Your task to perform on an android device: turn off wifi Image 0: 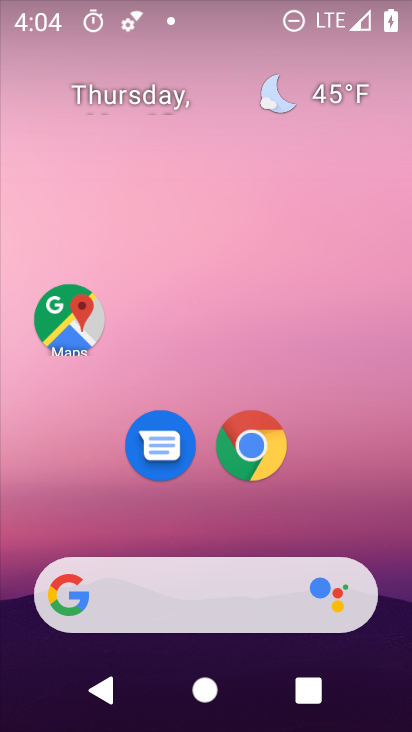
Step 0: drag from (306, 509) to (275, 149)
Your task to perform on an android device: turn off wifi Image 1: 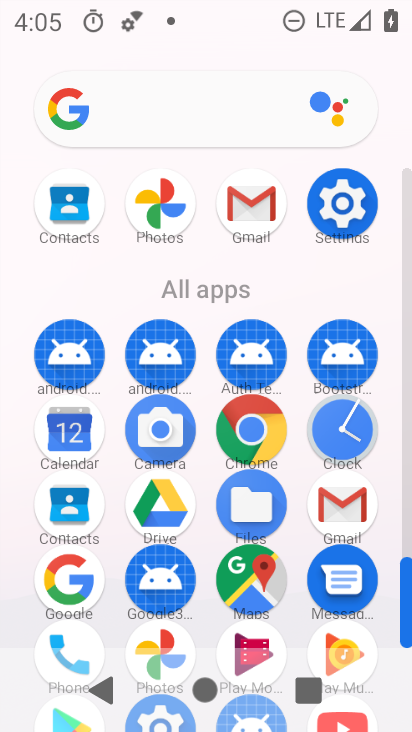
Step 1: click (341, 201)
Your task to perform on an android device: turn off wifi Image 2: 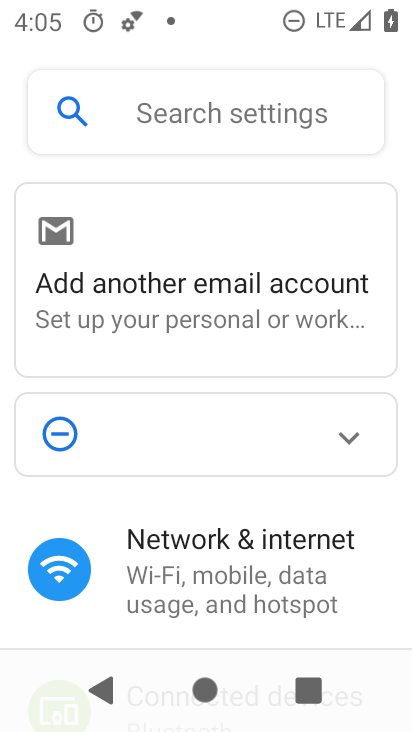
Step 2: click (242, 545)
Your task to perform on an android device: turn off wifi Image 3: 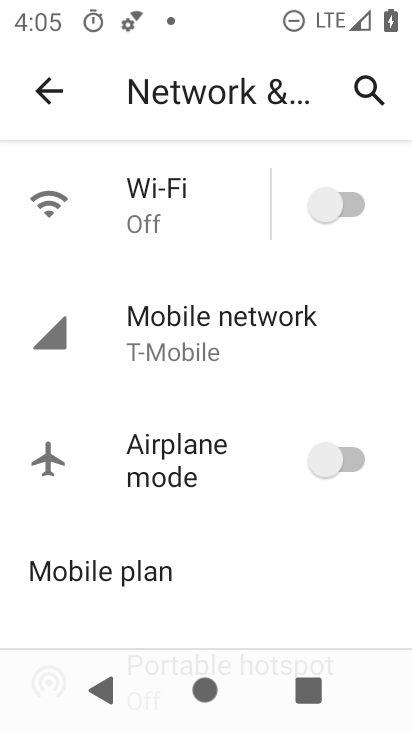
Step 3: task complete